Your task to perform on an android device: turn pop-ups off in chrome Image 0: 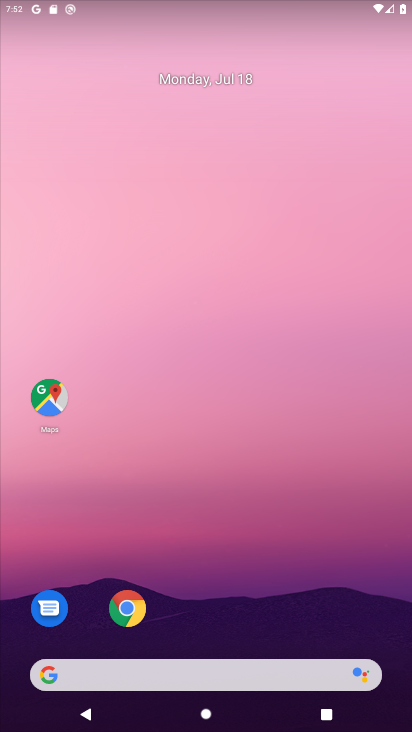
Step 0: click (123, 609)
Your task to perform on an android device: turn pop-ups off in chrome Image 1: 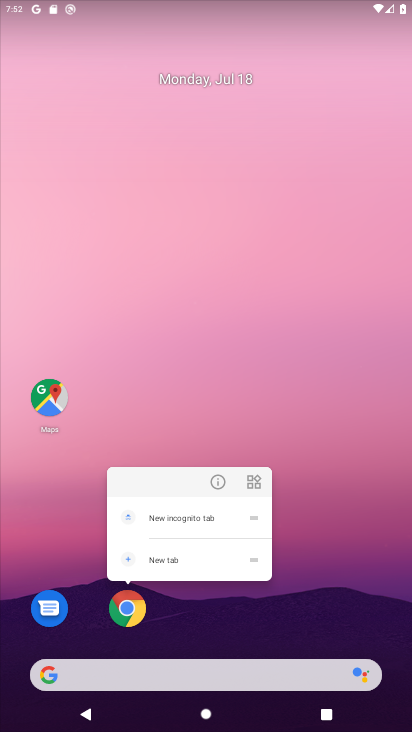
Step 1: click (119, 610)
Your task to perform on an android device: turn pop-ups off in chrome Image 2: 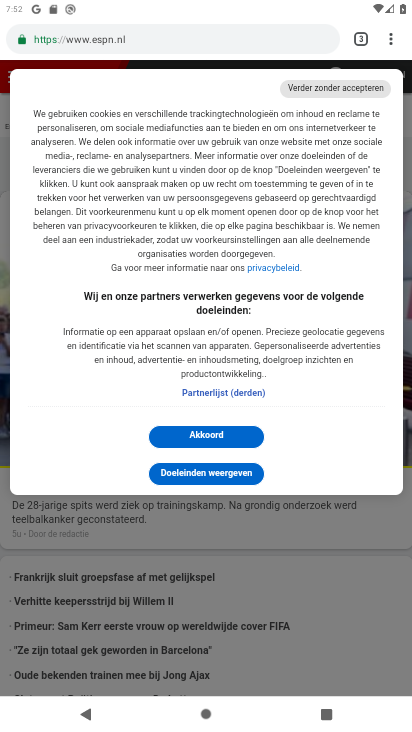
Step 2: click (393, 35)
Your task to perform on an android device: turn pop-ups off in chrome Image 3: 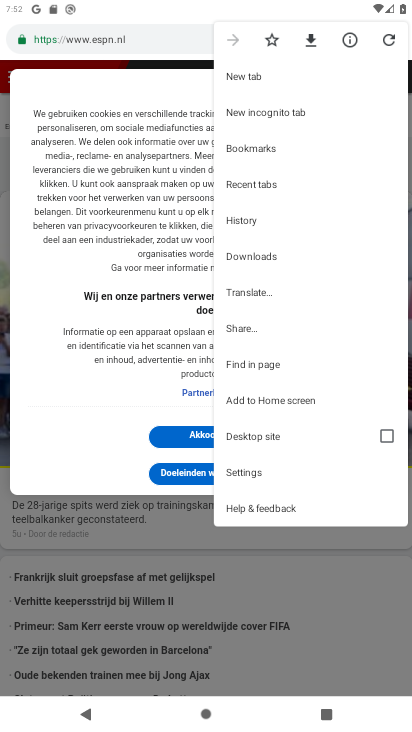
Step 3: click (240, 474)
Your task to perform on an android device: turn pop-ups off in chrome Image 4: 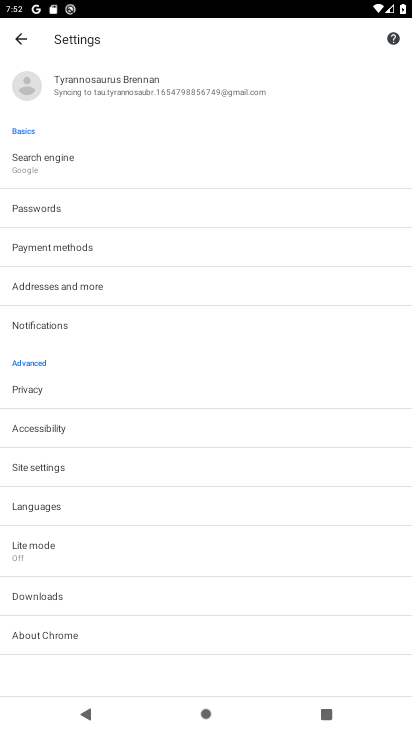
Step 4: click (37, 469)
Your task to perform on an android device: turn pop-ups off in chrome Image 5: 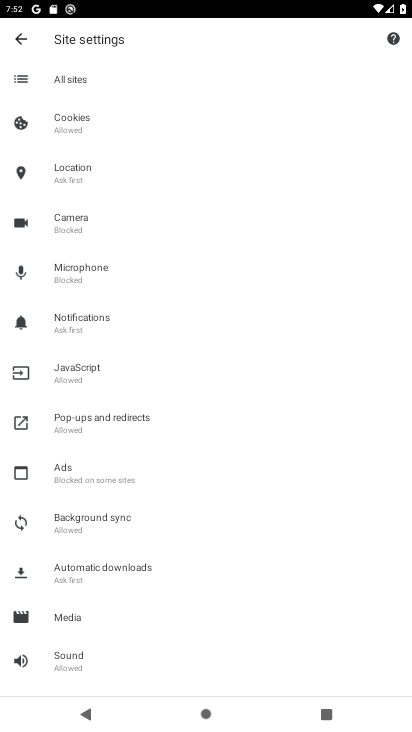
Step 5: click (65, 424)
Your task to perform on an android device: turn pop-ups off in chrome Image 6: 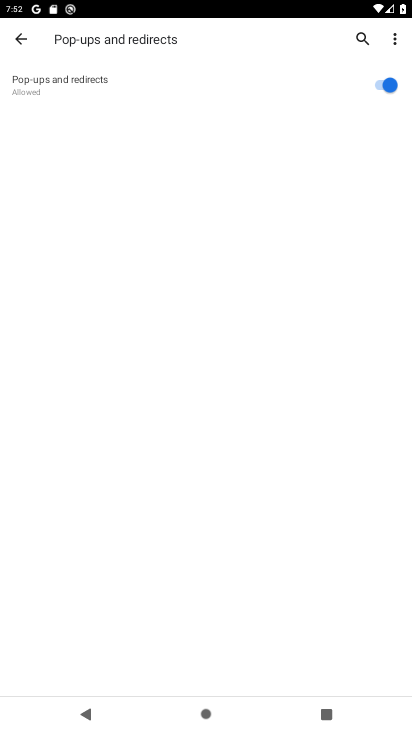
Step 6: click (378, 86)
Your task to perform on an android device: turn pop-ups off in chrome Image 7: 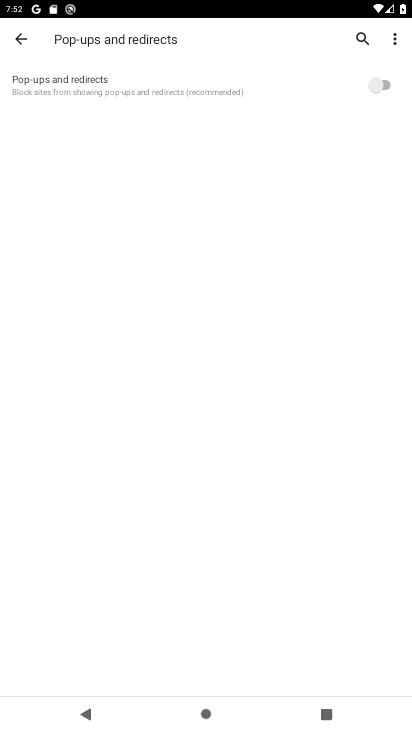
Step 7: task complete